Your task to perform on an android device: Set the phone to "Do not disturb". Image 0: 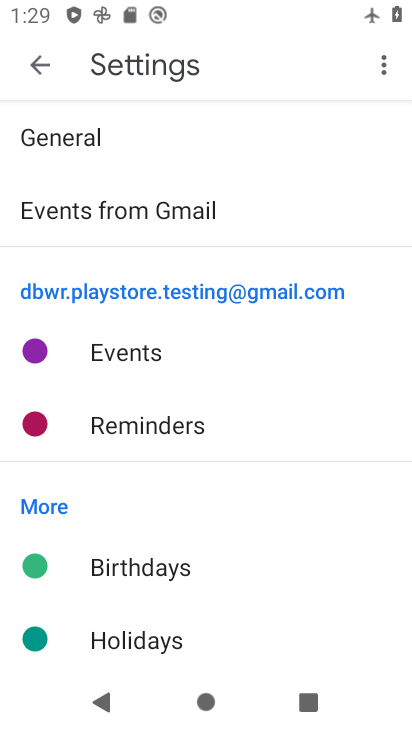
Step 0: press home button
Your task to perform on an android device: Set the phone to "Do not disturb". Image 1: 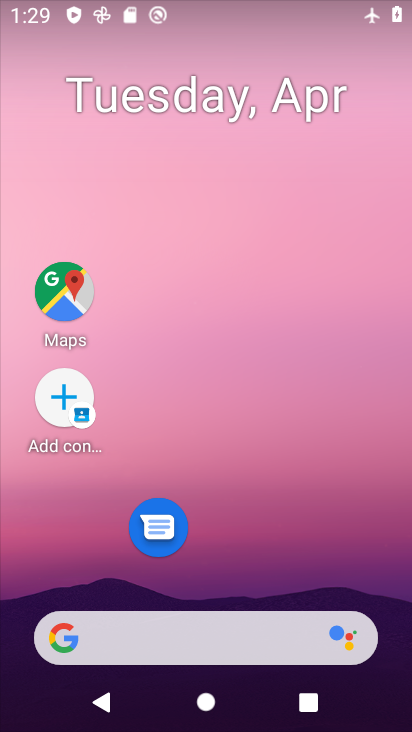
Step 1: drag from (262, 575) to (281, 34)
Your task to perform on an android device: Set the phone to "Do not disturb". Image 2: 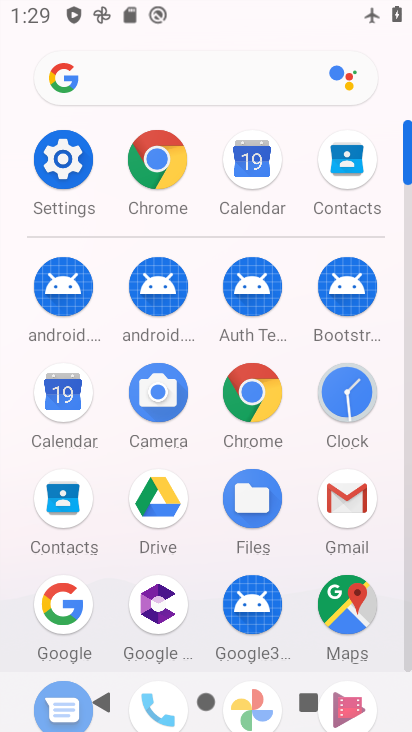
Step 2: click (61, 159)
Your task to perform on an android device: Set the phone to "Do not disturb". Image 3: 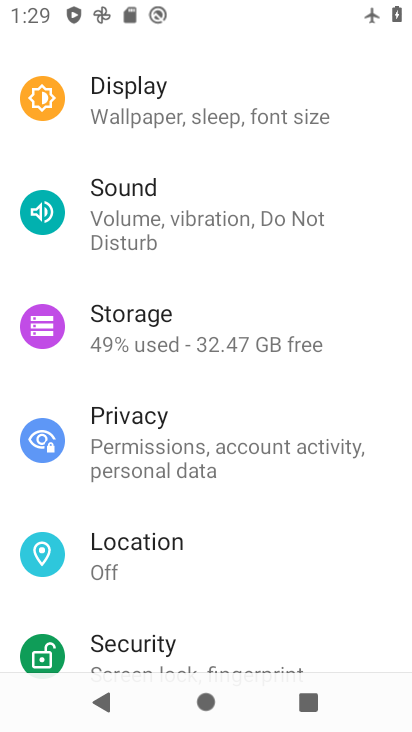
Step 3: click (158, 219)
Your task to perform on an android device: Set the phone to "Do not disturb". Image 4: 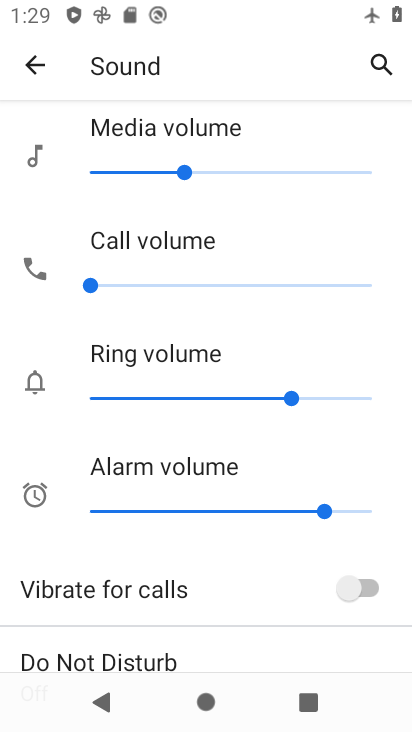
Step 4: drag from (219, 564) to (251, 405)
Your task to perform on an android device: Set the phone to "Do not disturb". Image 5: 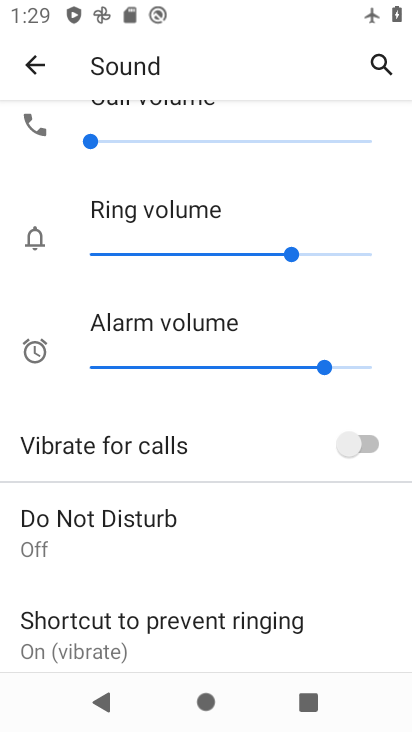
Step 5: click (166, 517)
Your task to perform on an android device: Set the phone to "Do not disturb". Image 6: 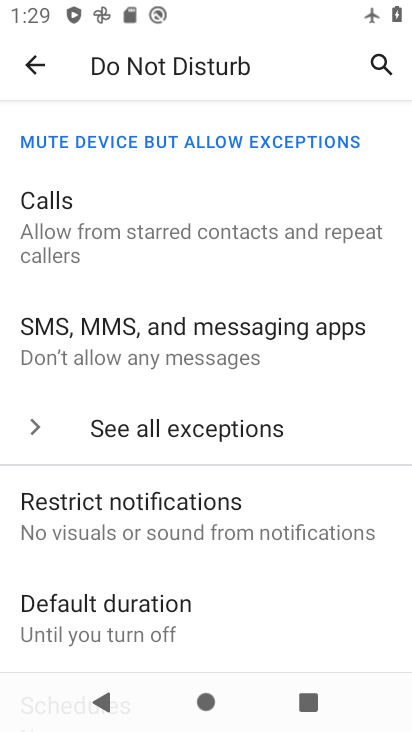
Step 6: drag from (197, 567) to (237, 438)
Your task to perform on an android device: Set the phone to "Do not disturb". Image 7: 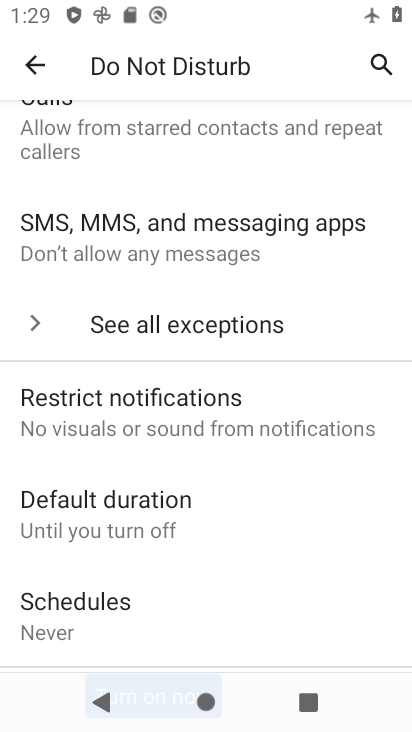
Step 7: drag from (207, 610) to (240, 443)
Your task to perform on an android device: Set the phone to "Do not disturb". Image 8: 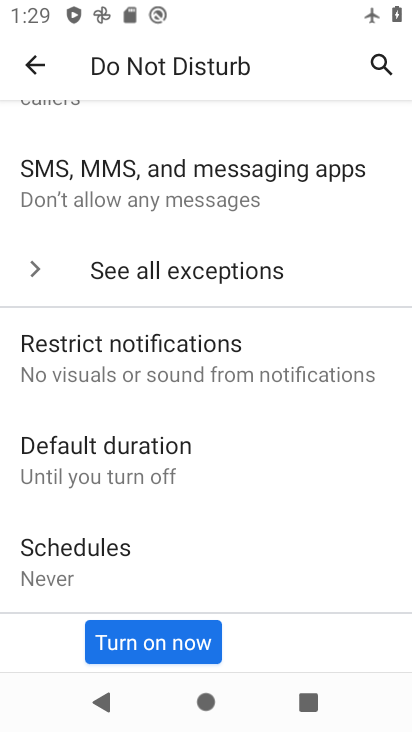
Step 8: click (169, 644)
Your task to perform on an android device: Set the phone to "Do not disturb". Image 9: 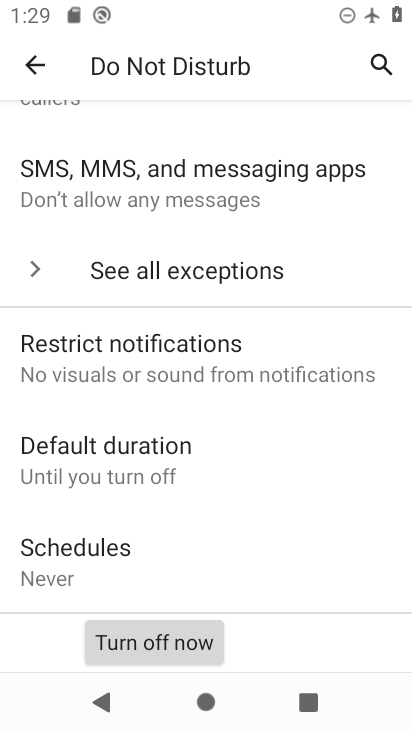
Step 9: task complete